Your task to perform on an android device: Toggle the flashlight Image 0: 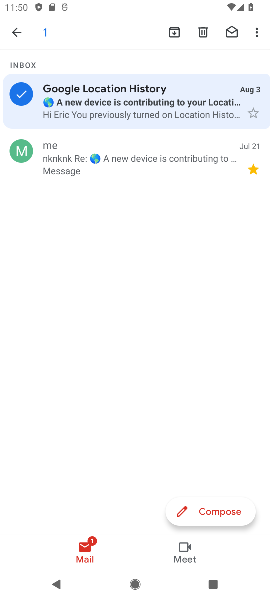
Step 0: press home button
Your task to perform on an android device: Toggle the flashlight Image 1: 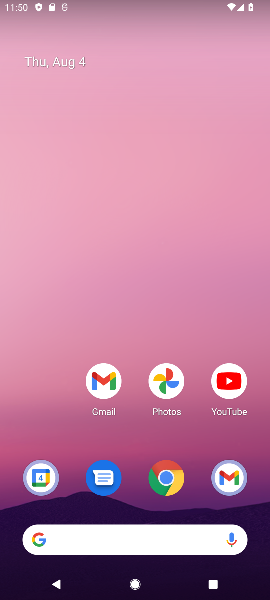
Step 1: drag from (170, 7) to (173, 432)
Your task to perform on an android device: Toggle the flashlight Image 2: 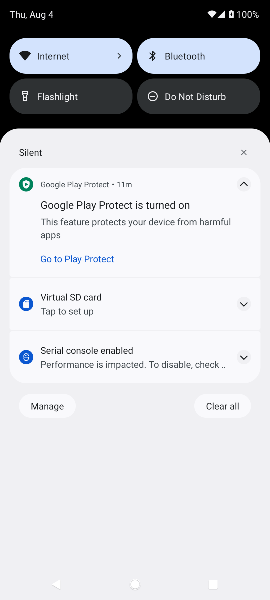
Step 2: click (55, 95)
Your task to perform on an android device: Toggle the flashlight Image 3: 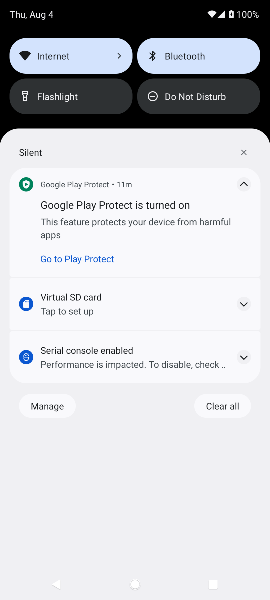
Step 3: task complete